Your task to perform on an android device: delete browsing data in the chrome app Image 0: 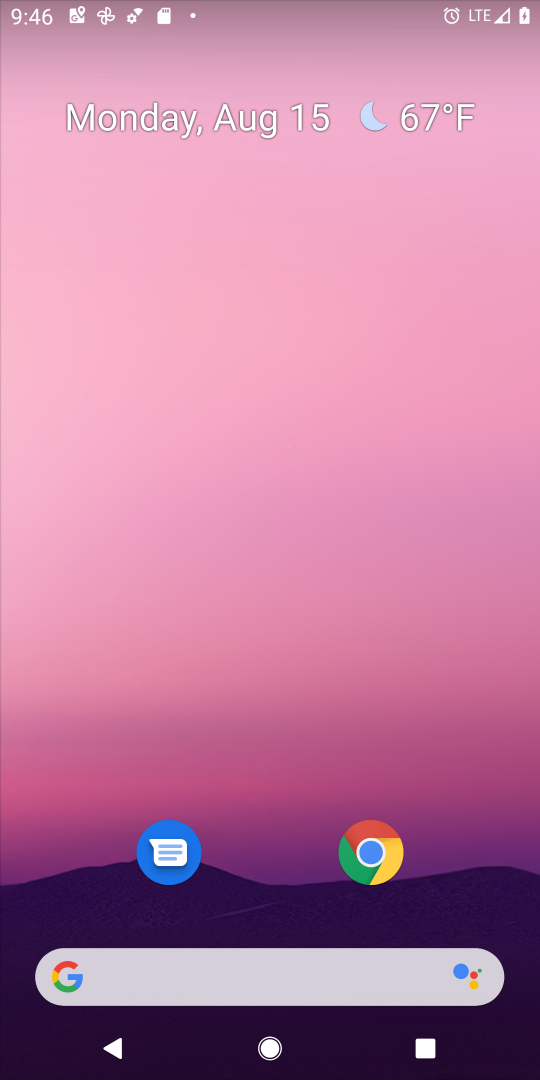
Step 0: click (367, 856)
Your task to perform on an android device: delete browsing data in the chrome app Image 1: 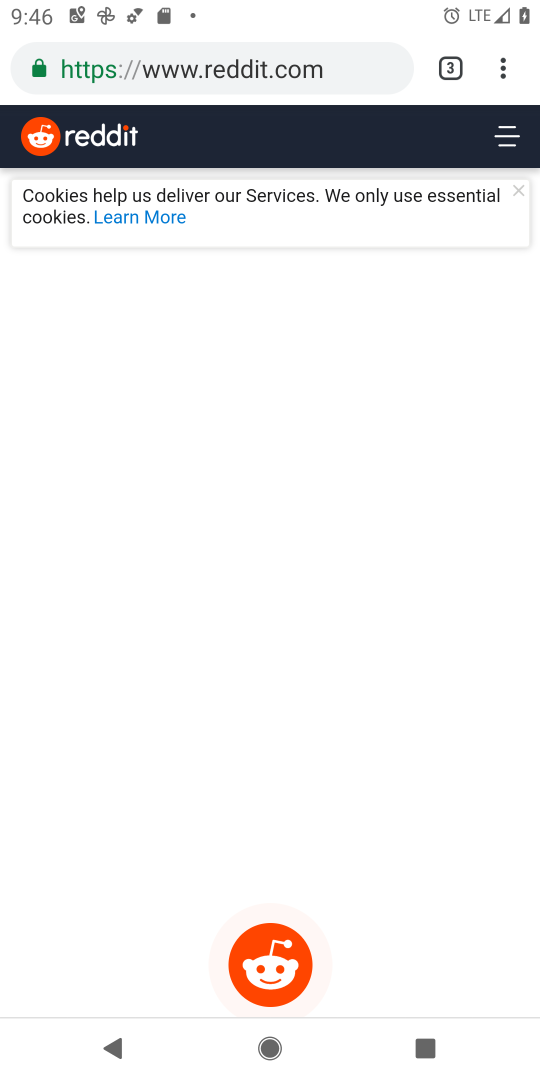
Step 1: drag from (501, 70) to (305, 903)
Your task to perform on an android device: delete browsing data in the chrome app Image 2: 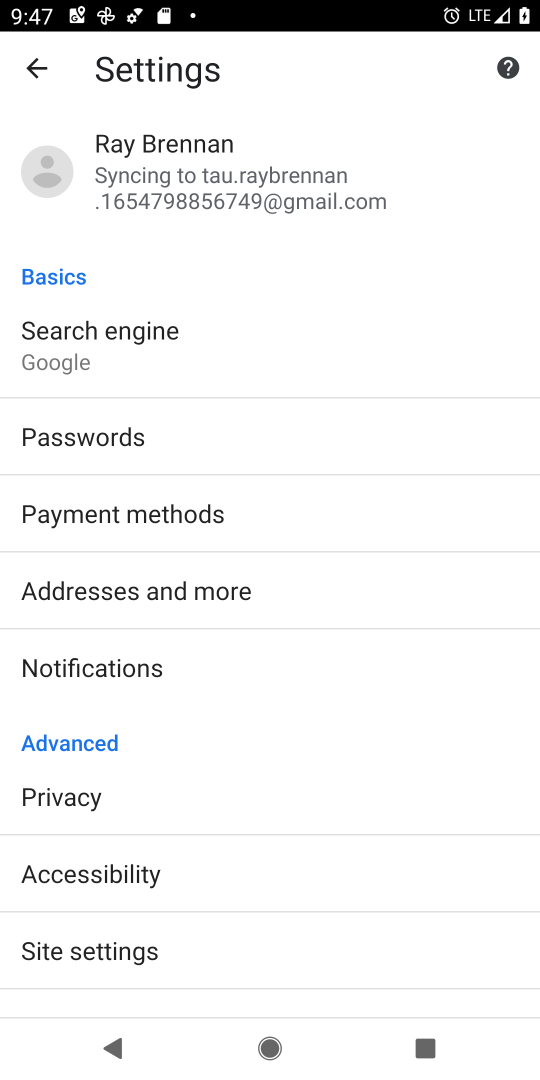
Step 2: click (76, 797)
Your task to perform on an android device: delete browsing data in the chrome app Image 3: 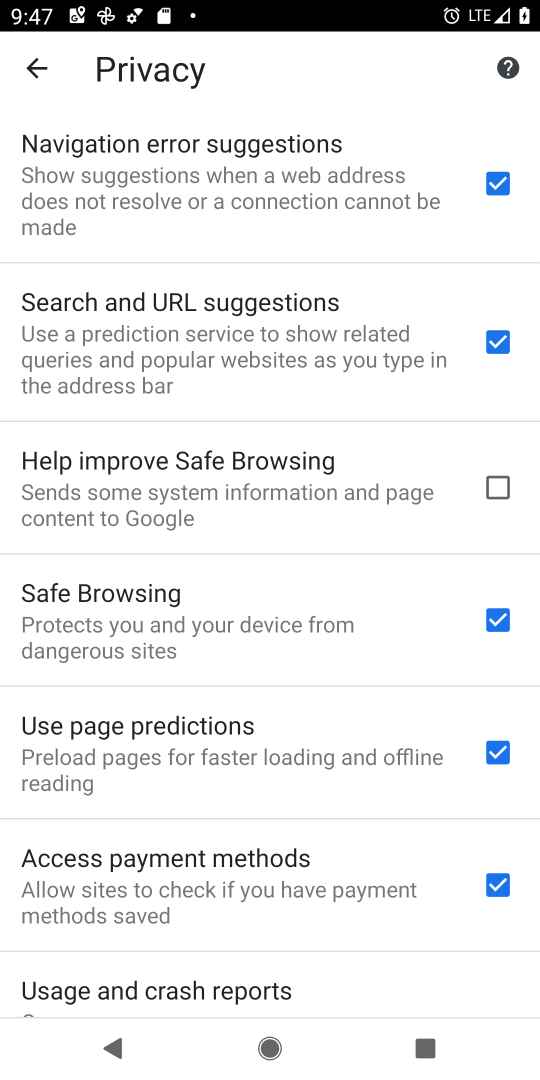
Step 3: drag from (184, 919) to (377, 586)
Your task to perform on an android device: delete browsing data in the chrome app Image 4: 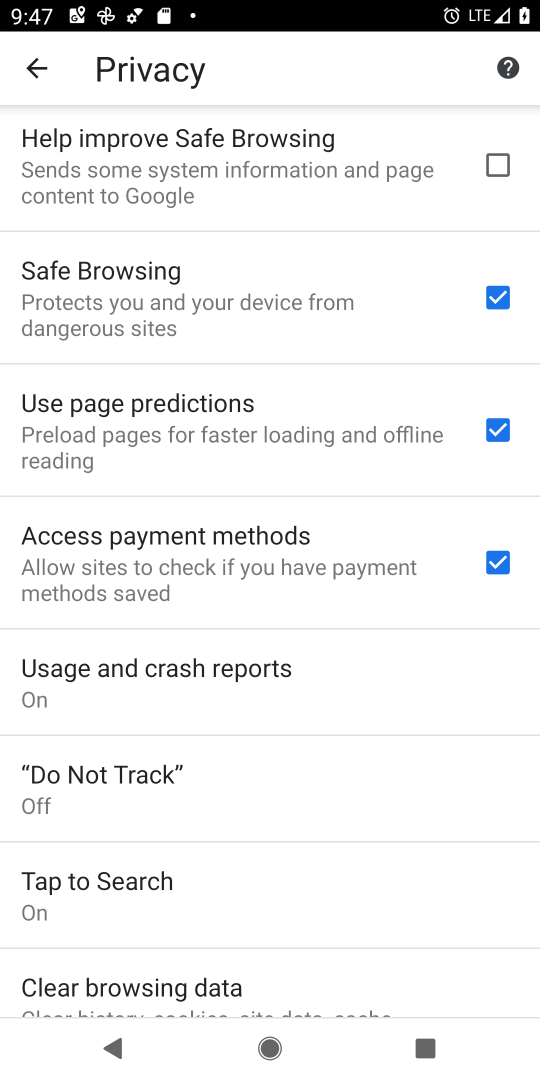
Step 4: drag from (232, 835) to (379, 581)
Your task to perform on an android device: delete browsing data in the chrome app Image 5: 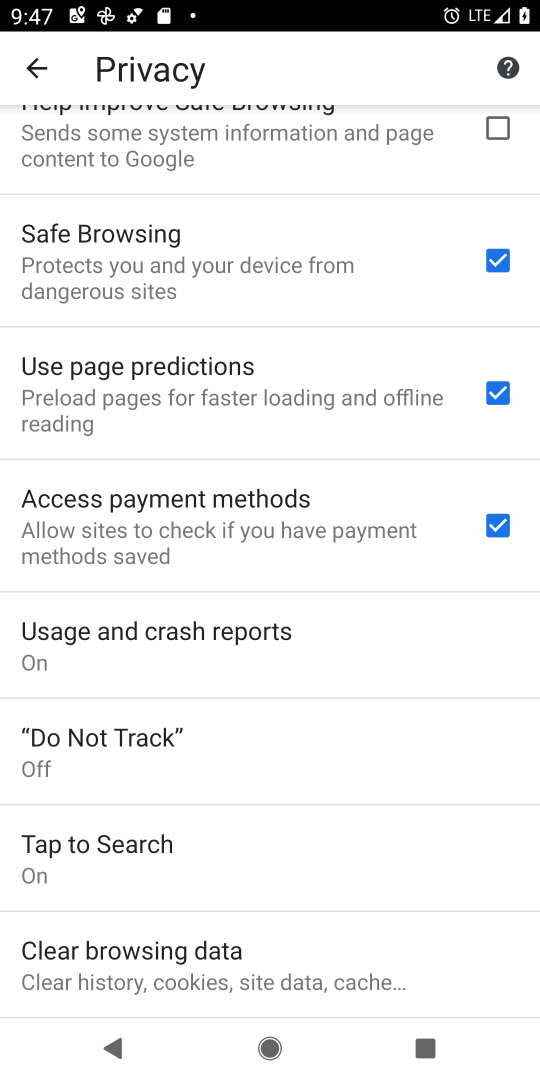
Step 5: click (247, 978)
Your task to perform on an android device: delete browsing data in the chrome app Image 6: 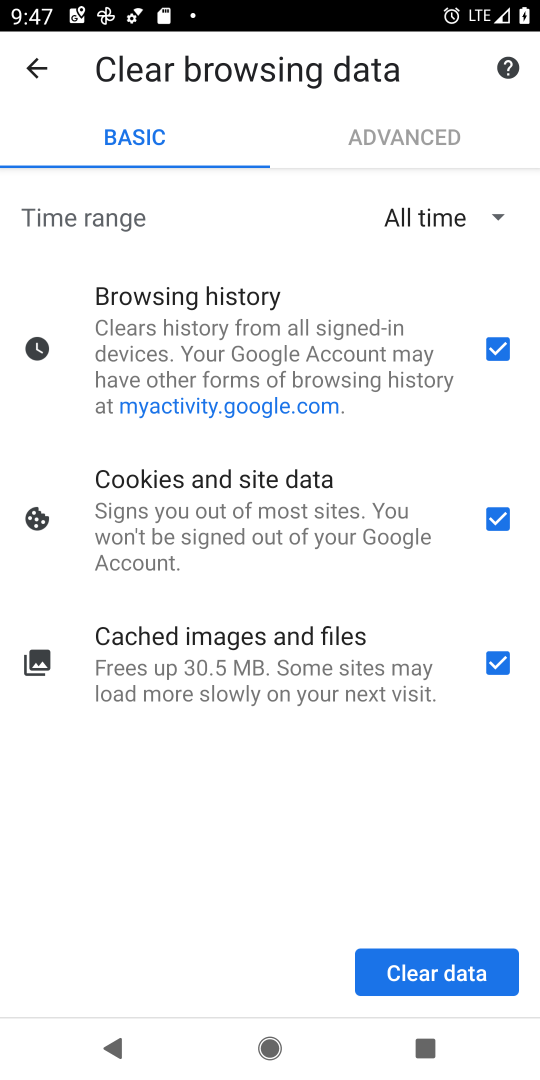
Step 6: click (395, 971)
Your task to perform on an android device: delete browsing data in the chrome app Image 7: 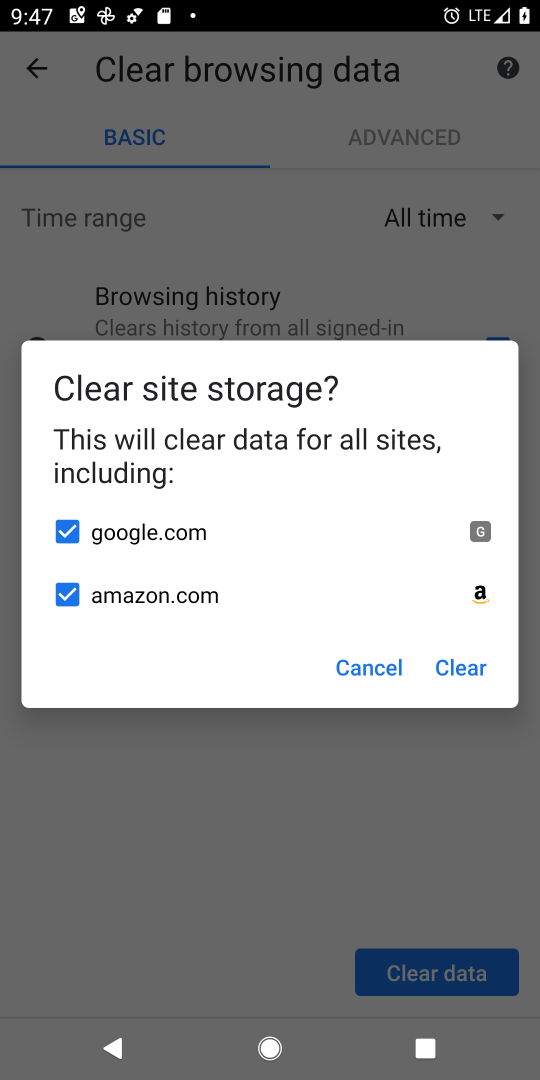
Step 7: click (467, 660)
Your task to perform on an android device: delete browsing data in the chrome app Image 8: 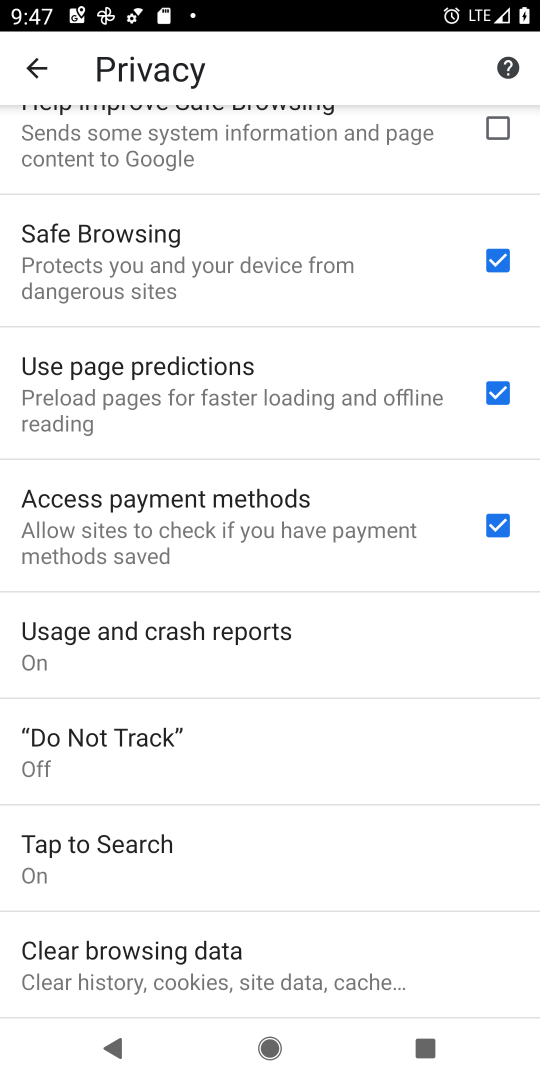
Step 8: task complete